Your task to perform on an android device: add a contact in the contacts app Image 0: 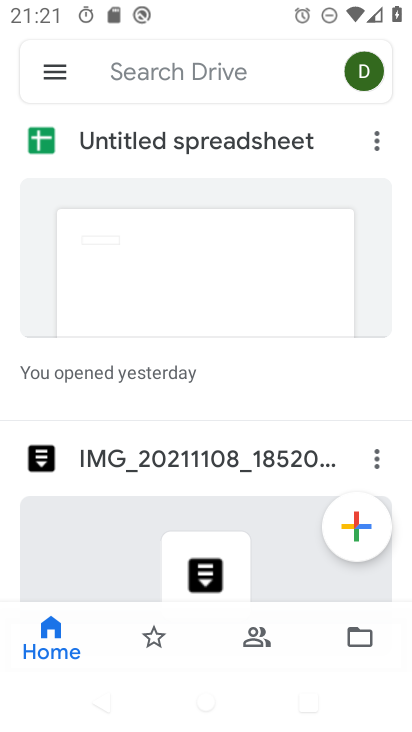
Step 0: press home button
Your task to perform on an android device: add a contact in the contacts app Image 1: 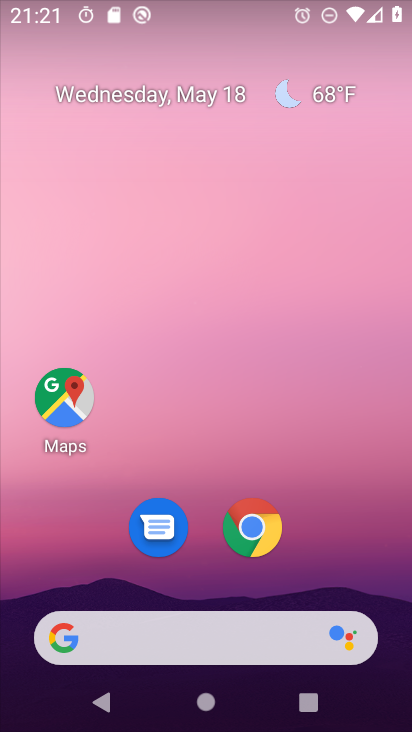
Step 1: drag from (405, 698) to (309, 265)
Your task to perform on an android device: add a contact in the contacts app Image 2: 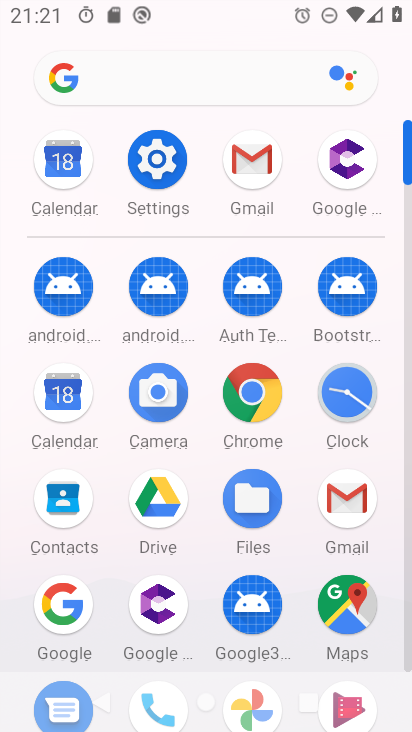
Step 2: click (59, 511)
Your task to perform on an android device: add a contact in the contacts app Image 3: 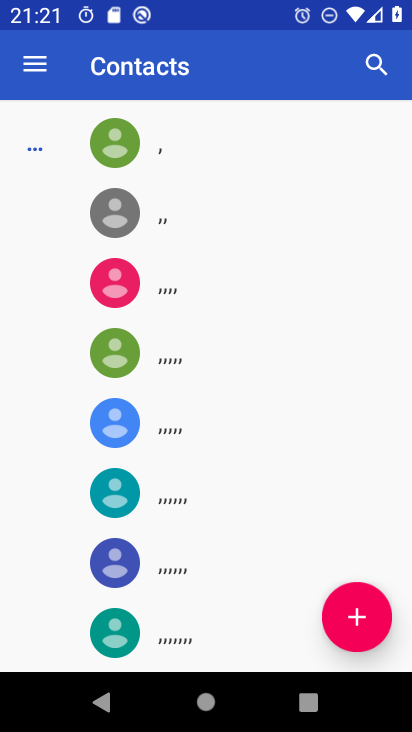
Step 3: click (355, 631)
Your task to perform on an android device: add a contact in the contacts app Image 4: 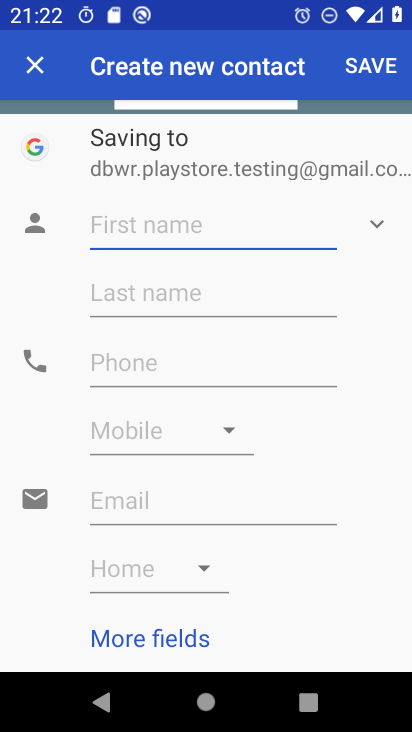
Step 4: click (168, 227)
Your task to perform on an android device: add a contact in the contacts app Image 5: 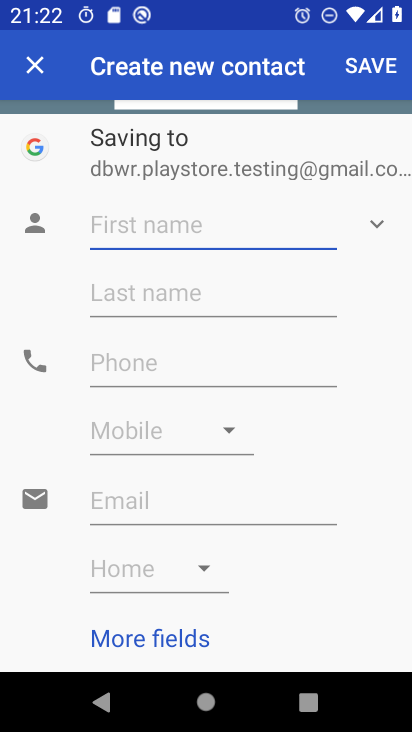
Step 5: type "sfgdfddfhg"
Your task to perform on an android device: add a contact in the contacts app Image 6: 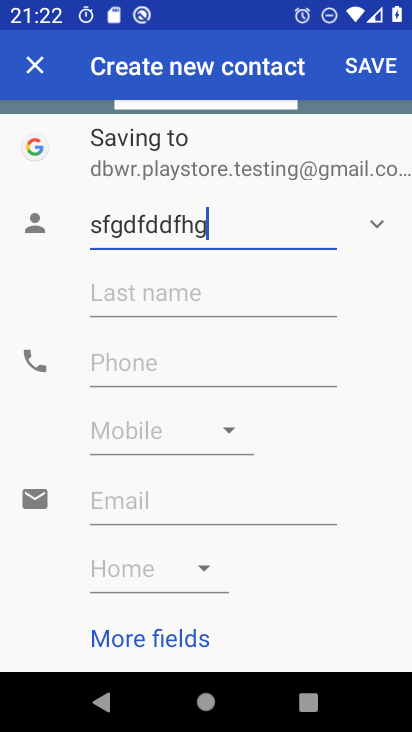
Step 6: click (213, 301)
Your task to perform on an android device: add a contact in the contacts app Image 7: 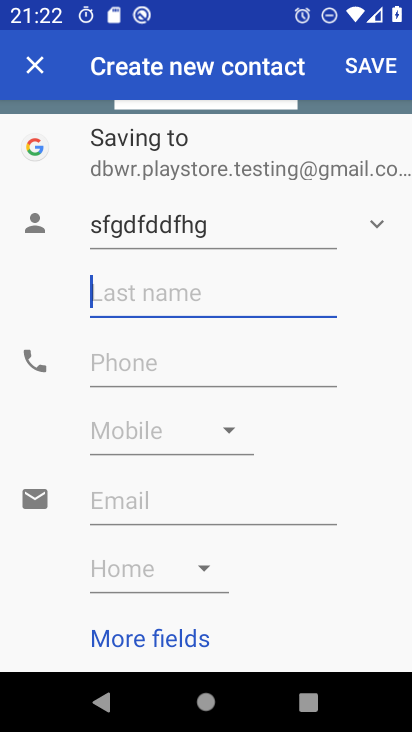
Step 7: type "cvcgtgv"
Your task to perform on an android device: add a contact in the contacts app Image 8: 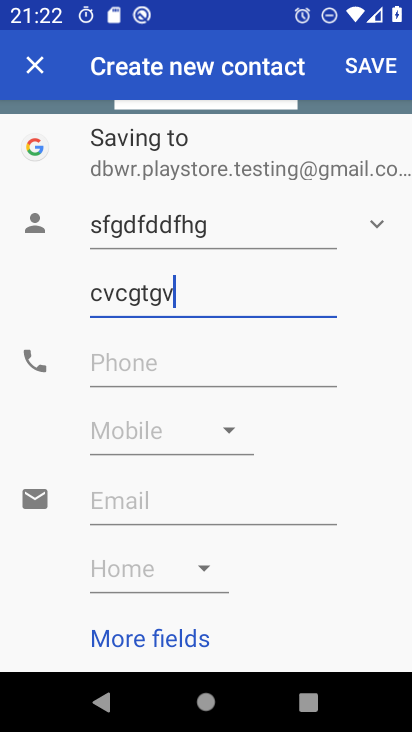
Step 8: click (158, 365)
Your task to perform on an android device: add a contact in the contacts app Image 9: 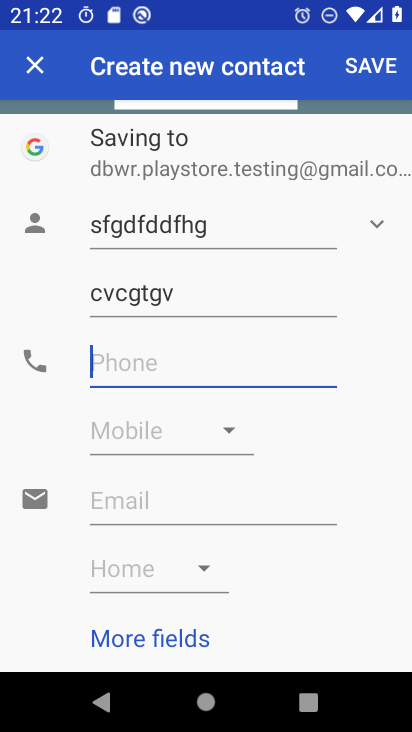
Step 9: type "437655455353"
Your task to perform on an android device: add a contact in the contacts app Image 10: 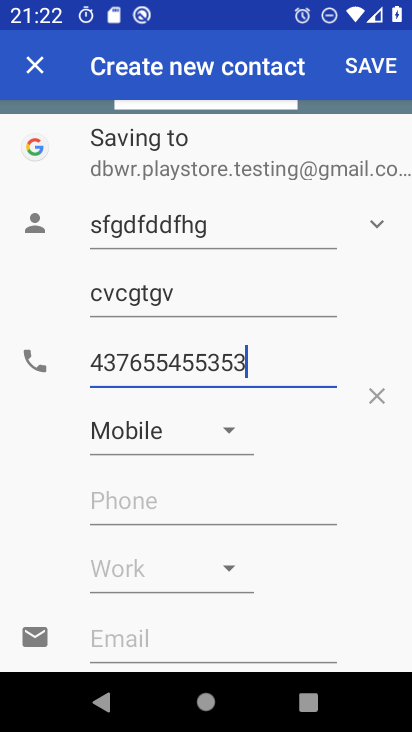
Step 10: drag from (320, 629) to (307, 412)
Your task to perform on an android device: add a contact in the contacts app Image 11: 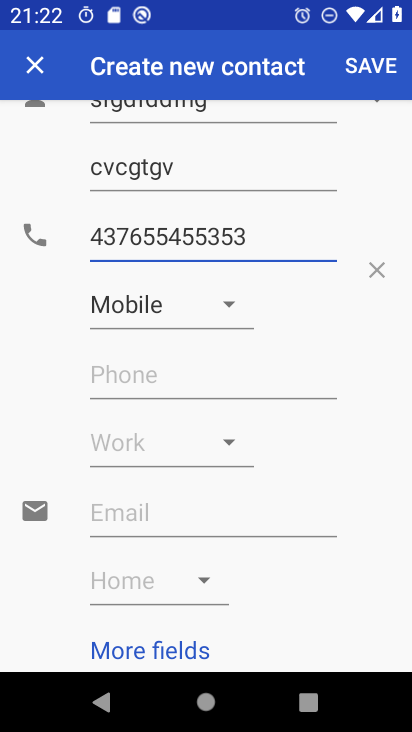
Step 11: click (372, 63)
Your task to perform on an android device: add a contact in the contacts app Image 12: 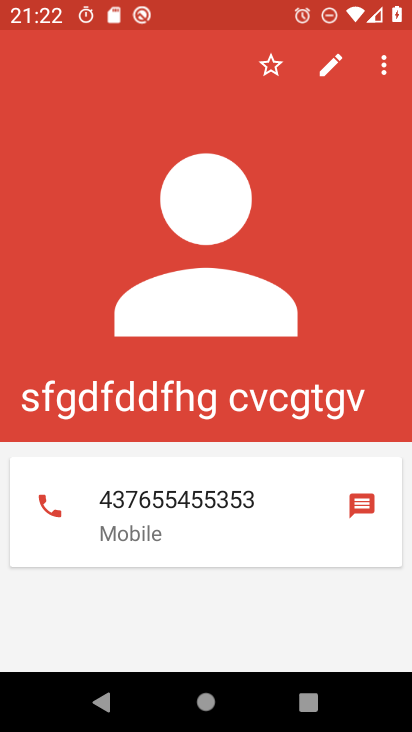
Step 12: task complete